Your task to perform on an android device: What's the weather going to be this weekend? Image 0: 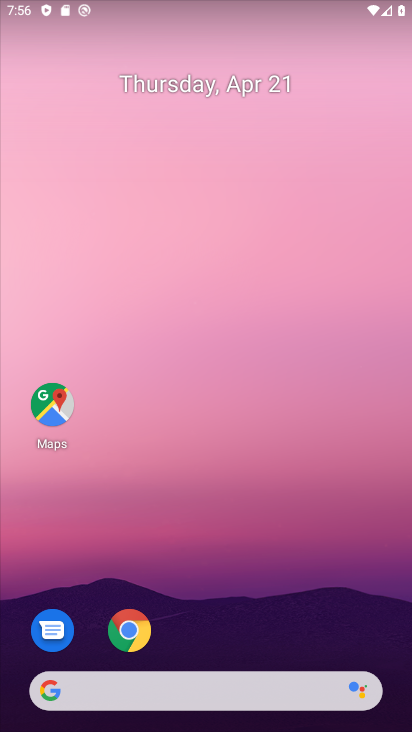
Step 0: click (213, 695)
Your task to perform on an android device: What's the weather going to be this weekend? Image 1: 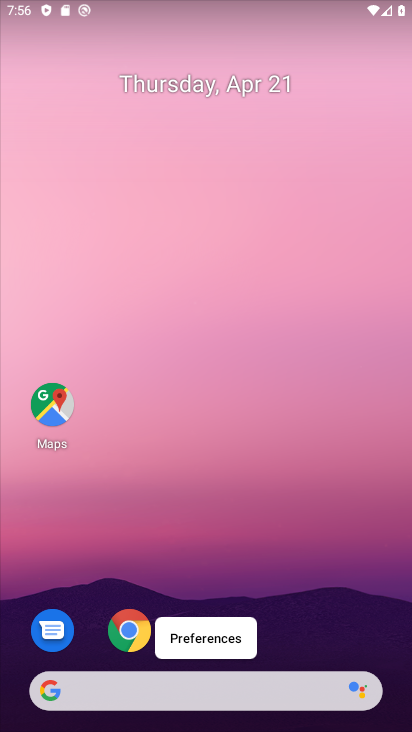
Step 1: click (207, 702)
Your task to perform on an android device: What's the weather going to be this weekend? Image 2: 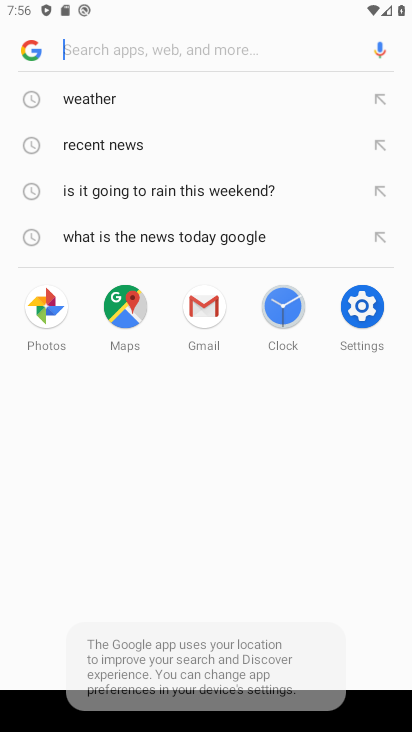
Step 2: click (182, 110)
Your task to perform on an android device: What's the weather going to be this weekend? Image 3: 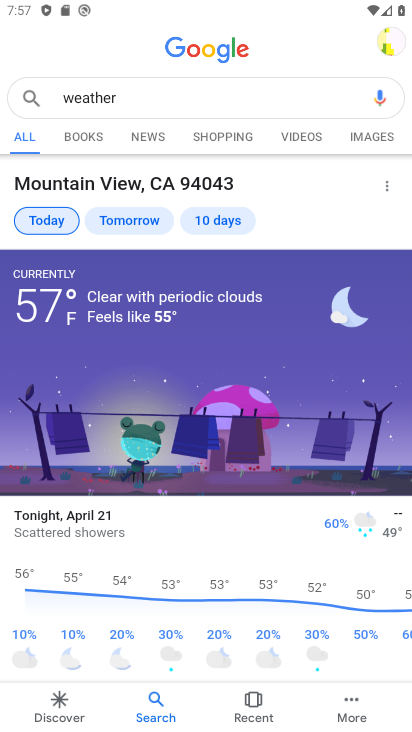
Step 3: drag from (217, 507) to (196, 241)
Your task to perform on an android device: What's the weather going to be this weekend? Image 4: 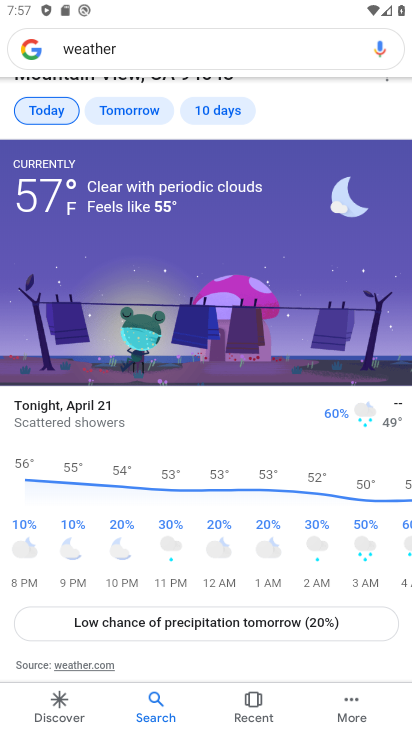
Step 4: drag from (118, 559) to (168, 232)
Your task to perform on an android device: What's the weather going to be this weekend? Image 5: 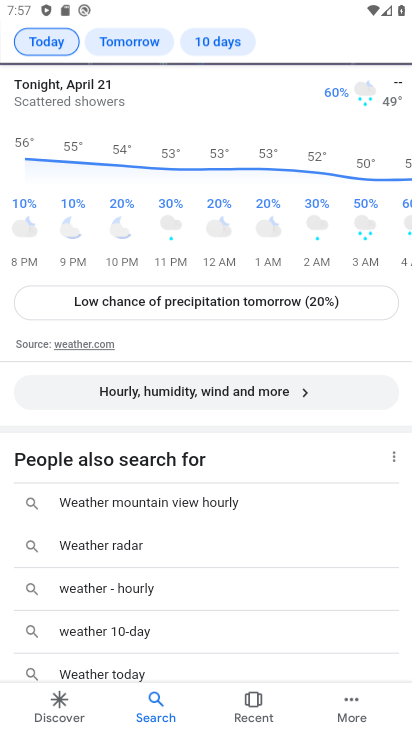
Step 5: drag from (173, 610) to (191, 440)
Your task to perform on an android device: What's the weather going to be this weekend? Image 6: 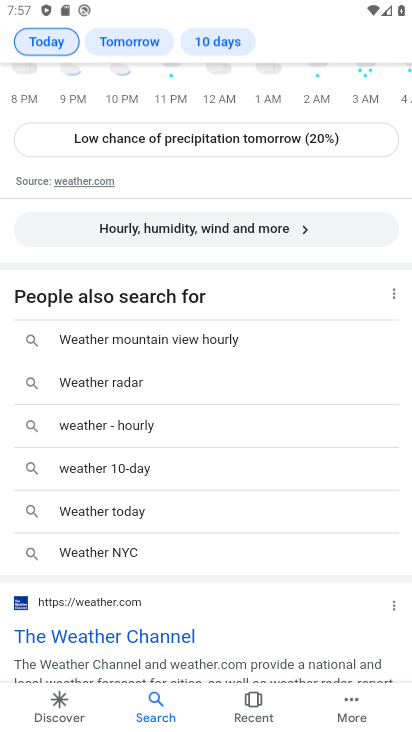
Step 6: click (163, 467)
Your task to perform on an android device: What's the weather going to be this weekend? Image 7: 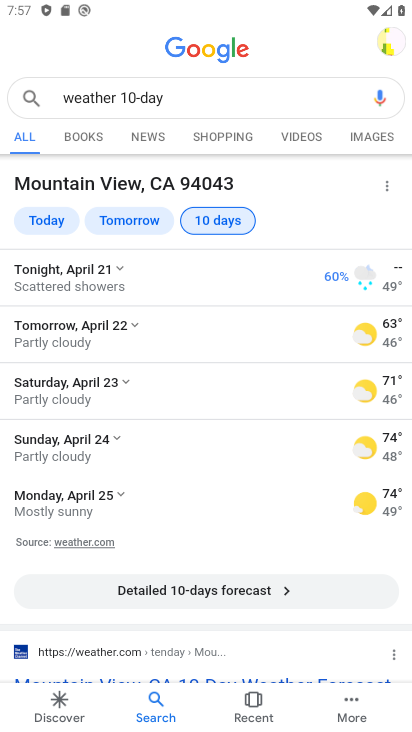
Step 7: task complete